Your task to perform on an android device: Open the stopwatch Image 0: 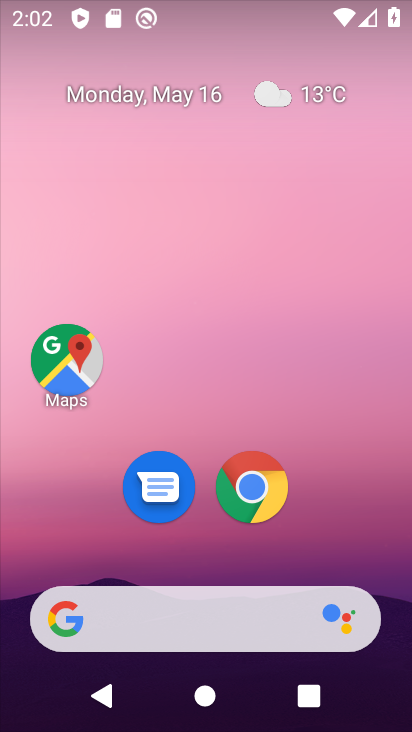
Step 0: drag from (327, 493) to (72, 78)
Your task to perform on an android device: Open the stopwatch Image 1: 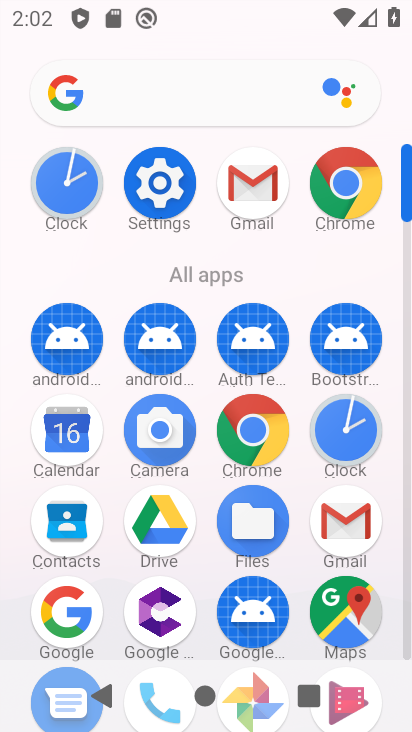
Step 1: click (83, 182)
Your task to perform on an android device: Open the stopwatch Image 2: 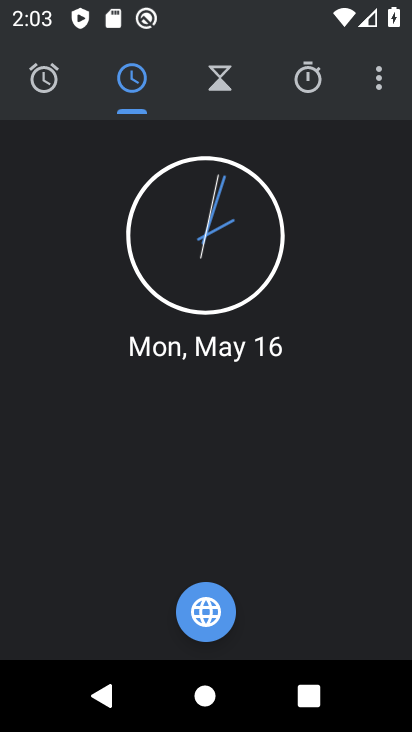
Step 2: click (315, 84)
Your task to perform on an android device: Open the stopwatch Image 3: 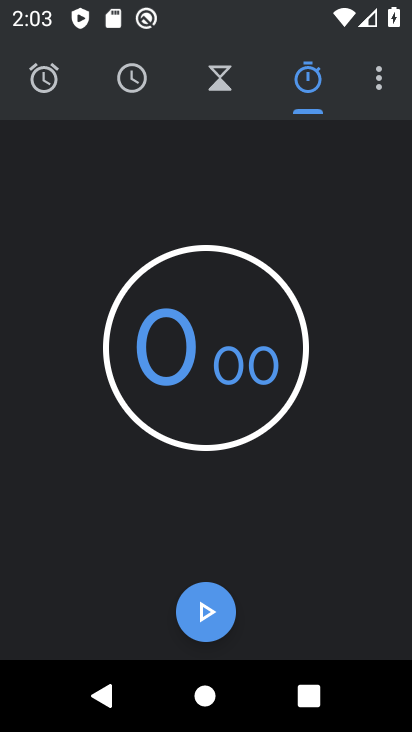
Step 3: task complete